Your task to perform on an android device: Go to CNN.com Image 0: 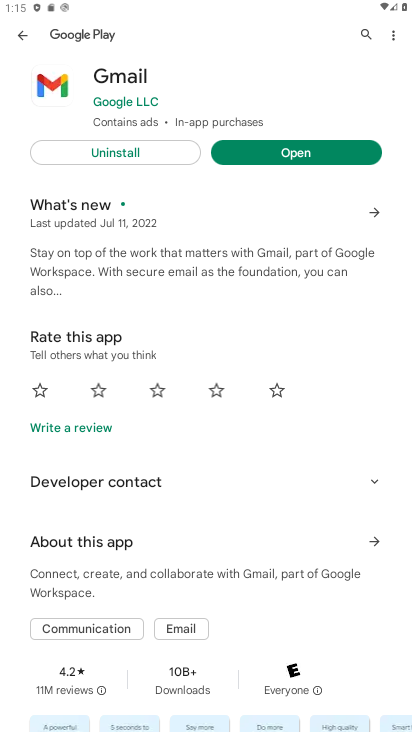
Step 0: press home button
Your task to perform on an android device: Go to CNN.com Image 1: 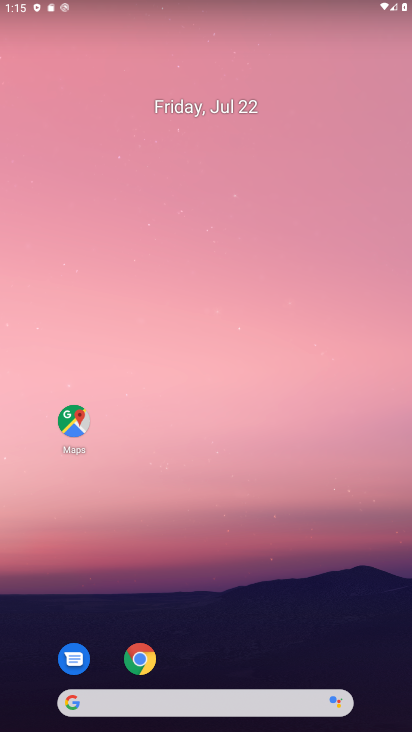
Step 1: click (205, 699)
Your task to perform on an android device: Go to CNN.com Image 2: 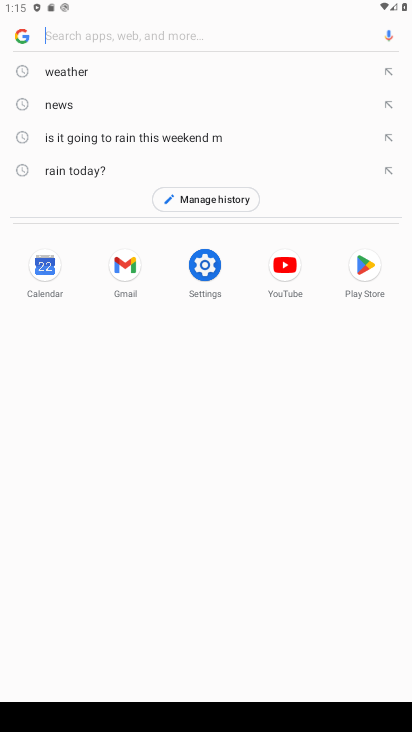
Step 2: type "cnn"
Your task to perform on an android device: Go to CNN.com Image 3: 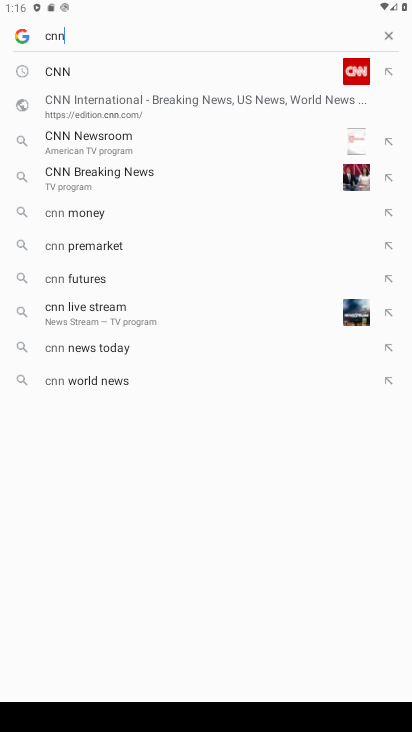
Step 3: click (144, 99)
Your task to perform on an android device: Go to CNN.com Image 4: 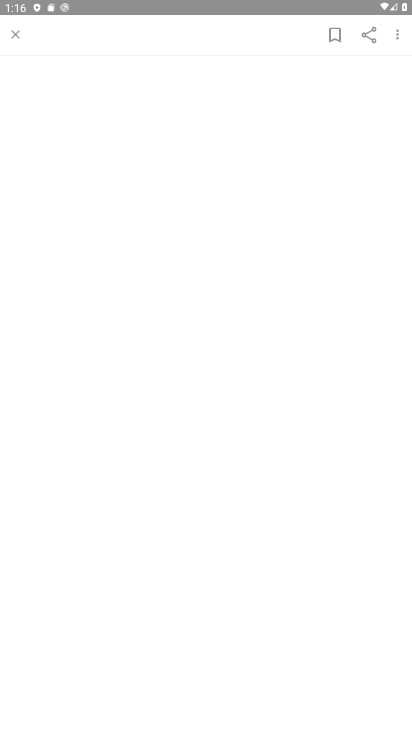
Step 4: task complete